Your task to perform on an android device: Search for the best rated wireless headphones on Amazon. Image 0: 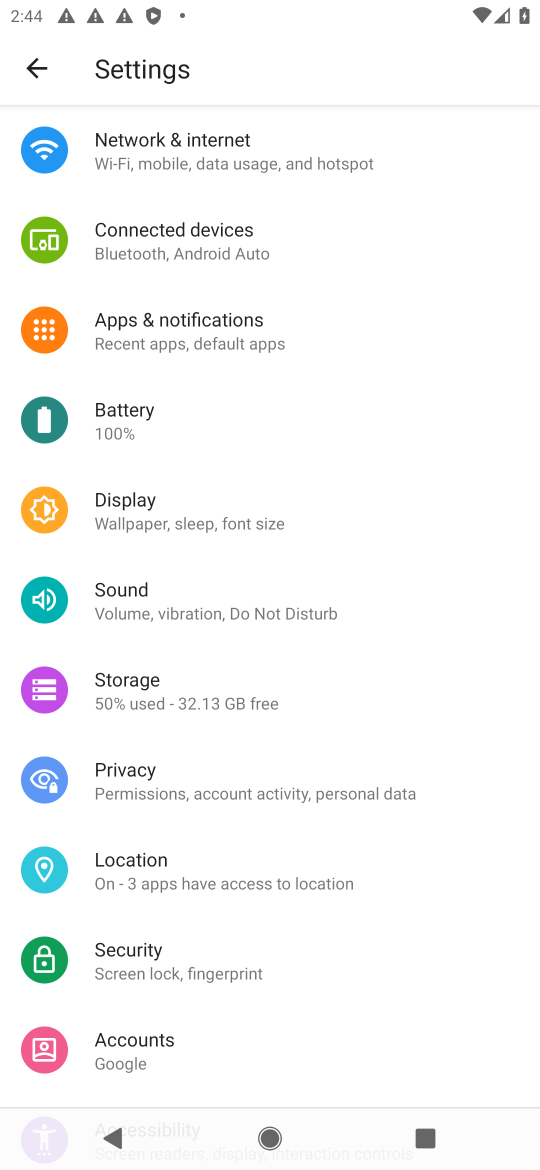
Step 0: press home button
Your task to perform on an android device: Search for the best rated wireless headphones on Amazon. Image 1: 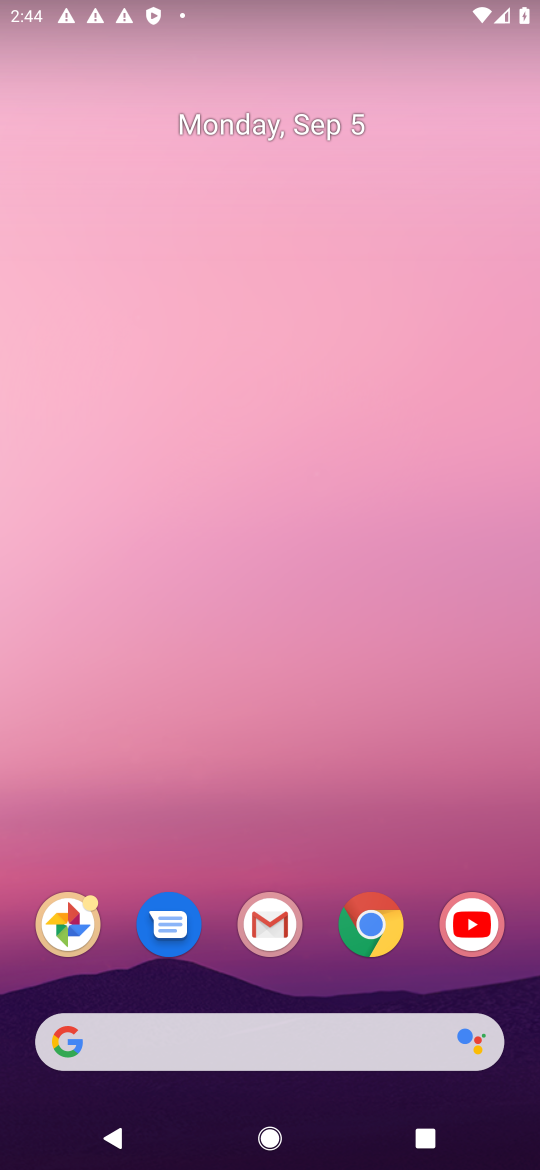
Step 1: click (370, 912)
Your task to perform on an android device: Search for the best rated wireless headphones on Amazon. Image 2: 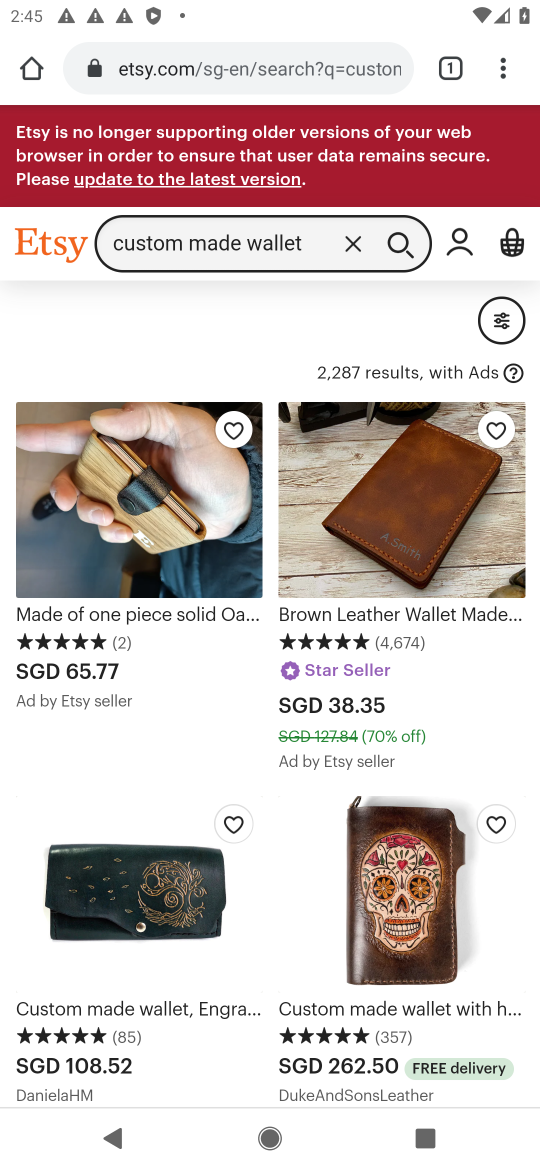
Step 2: click (301, 70)
Your task to perform on an android device: Search for the best rated wireless headphones on Amazon. Image 3: 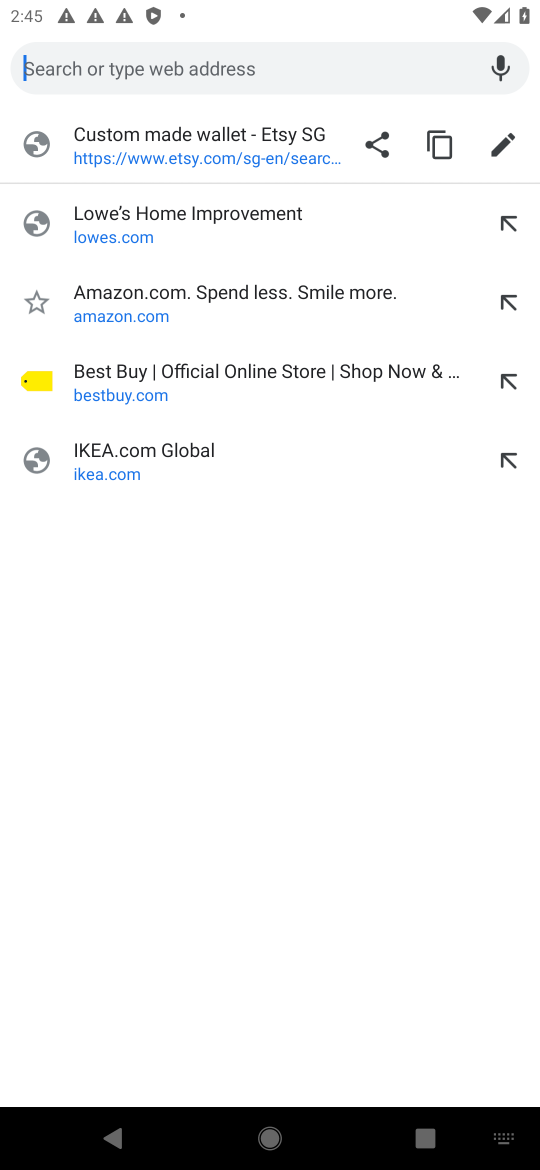
Step 3: click (300, 311)
Your task to perform on an android device: Search for the best rated wireless headphones on Amazon. Image 4: 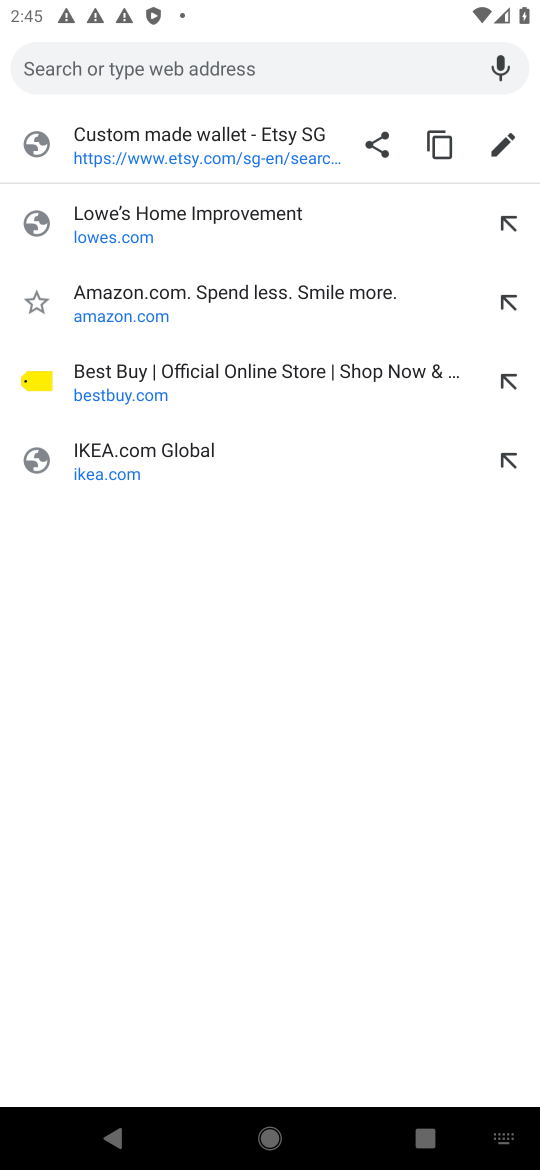
Step 4: click (276, 304)
Your task to perform on an android device: Search for the best rated wireless headphones on Amazon. Image 5: 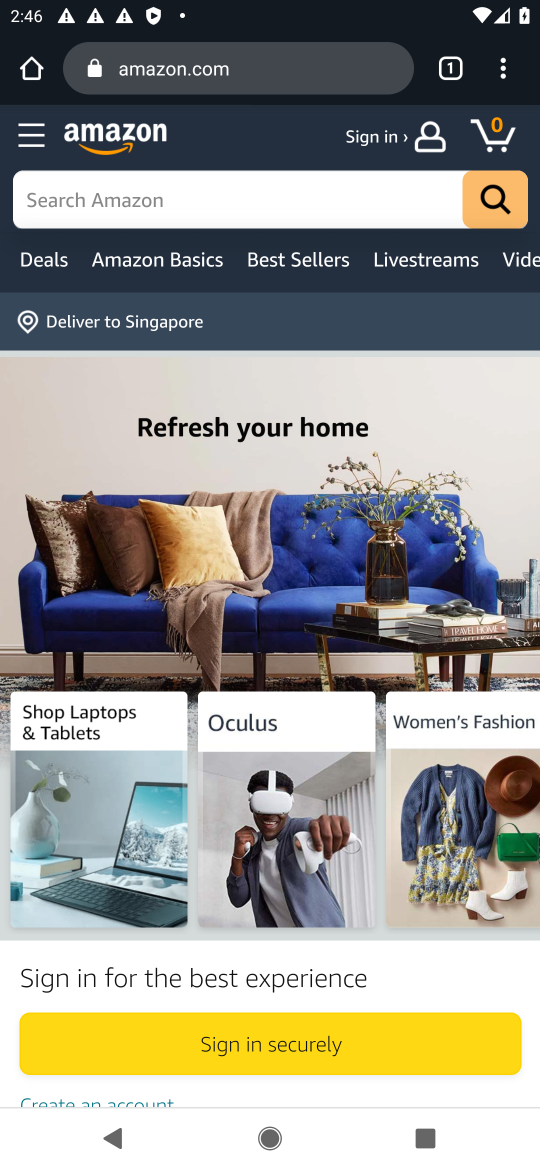
Step 5: click (204, 192)
Your task to perform on an android device: Search for the best rated wireless headphones on Amazon. Image 6: 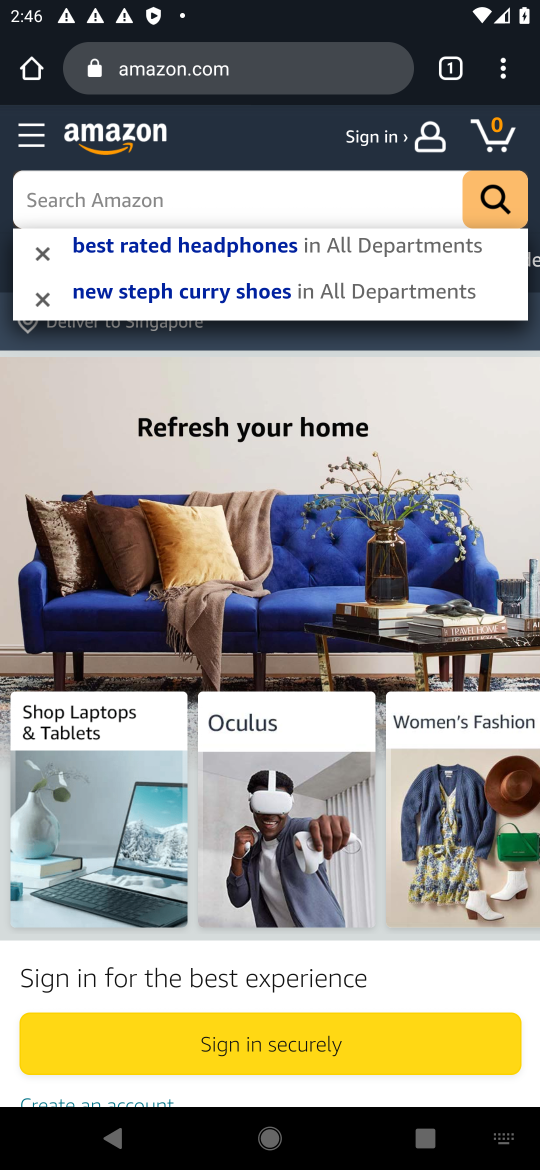
Step 6: click (157, 250)
Your task to perform on an android device: Search for the best rated wireless headphones on Amazon. Image 7: 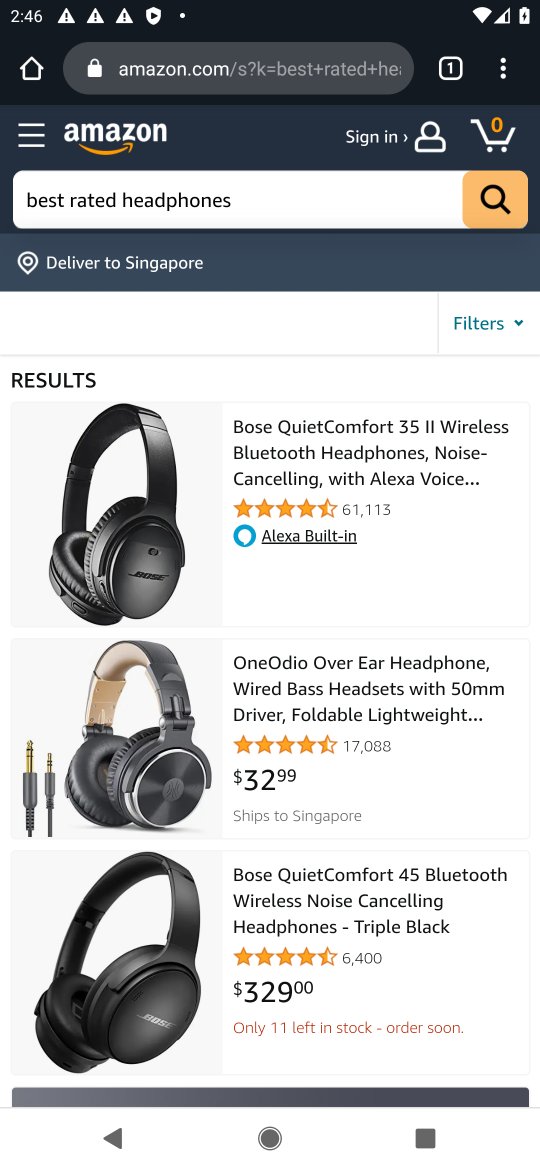
Step 7: task complete